Your task to perform on an android device: Go to accessibility settings Image 0: 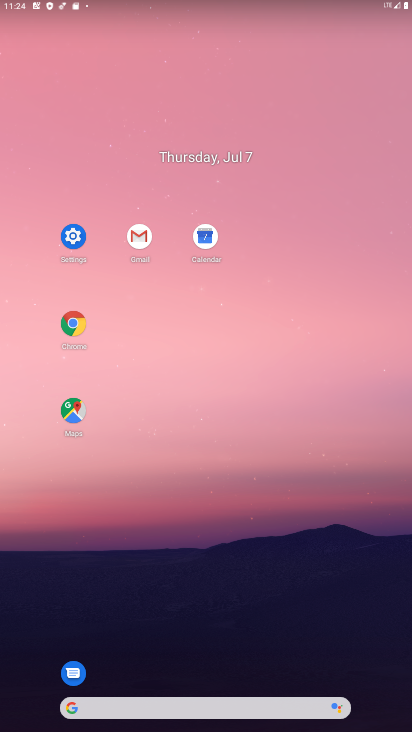
Step 0: click (68, 238)
Your task to perform on an android device: Go to accessibility settings Image 1: 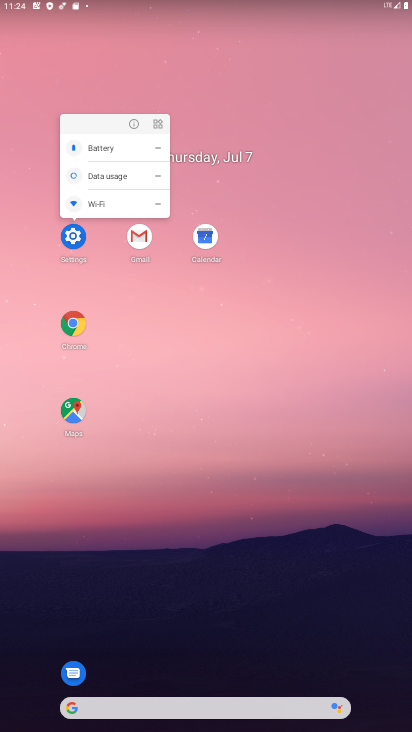
Step 1: click (69, 243)
Your task to perform on an android device: Go to accessibility settings Image 2: 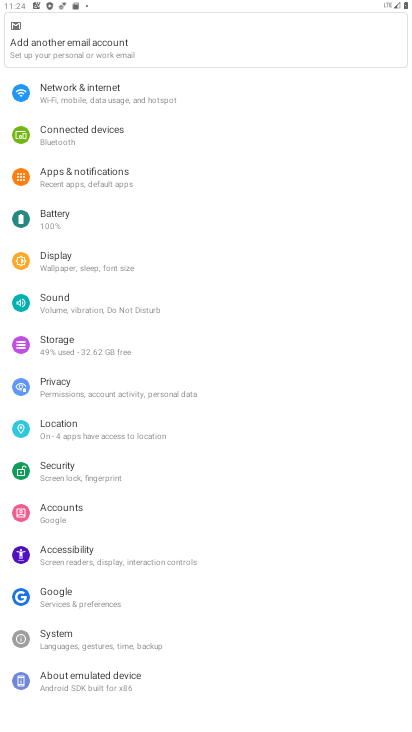
Step 2: click (97, 548)
Your task to perform on an android device: Go to accessibility settings Image 3: 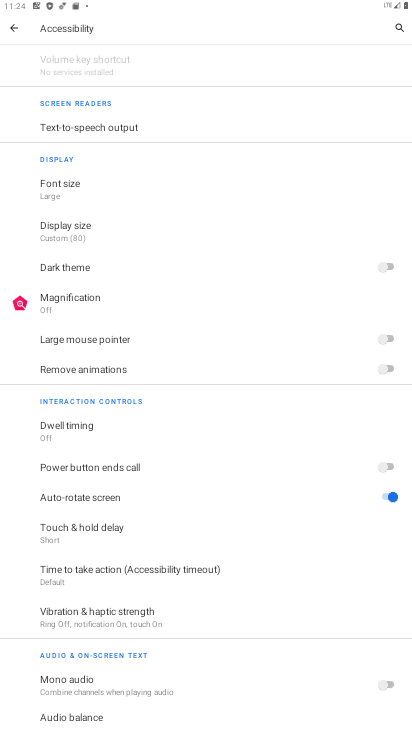
Step 3: task complete